Your task to perform on an android device: Do I have any events this weekend? Image 0: 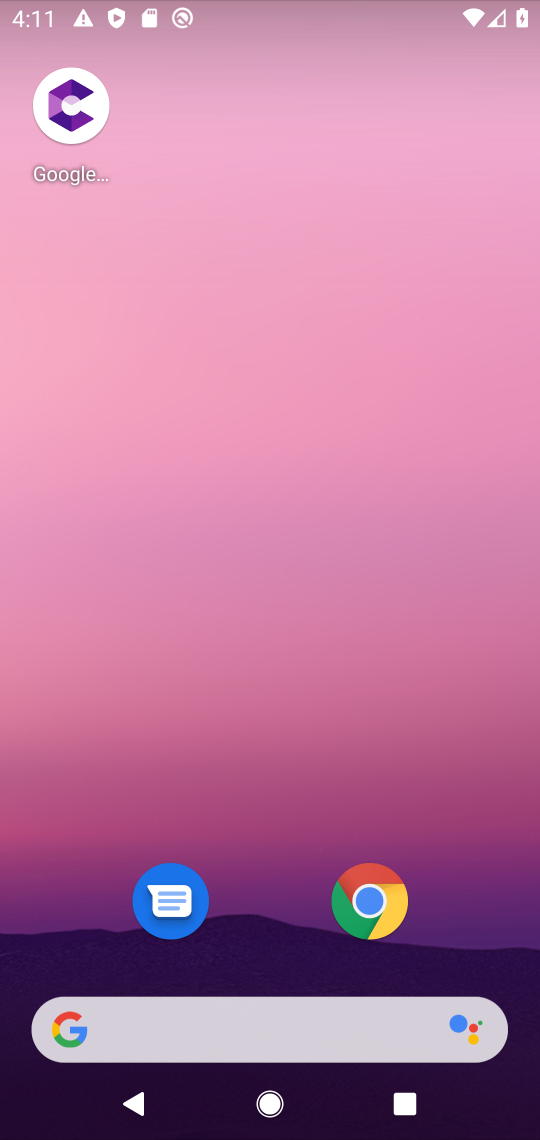
Step 0: press home button
Your task to perform on an android device: Do I have any events this weekend? Image 1: 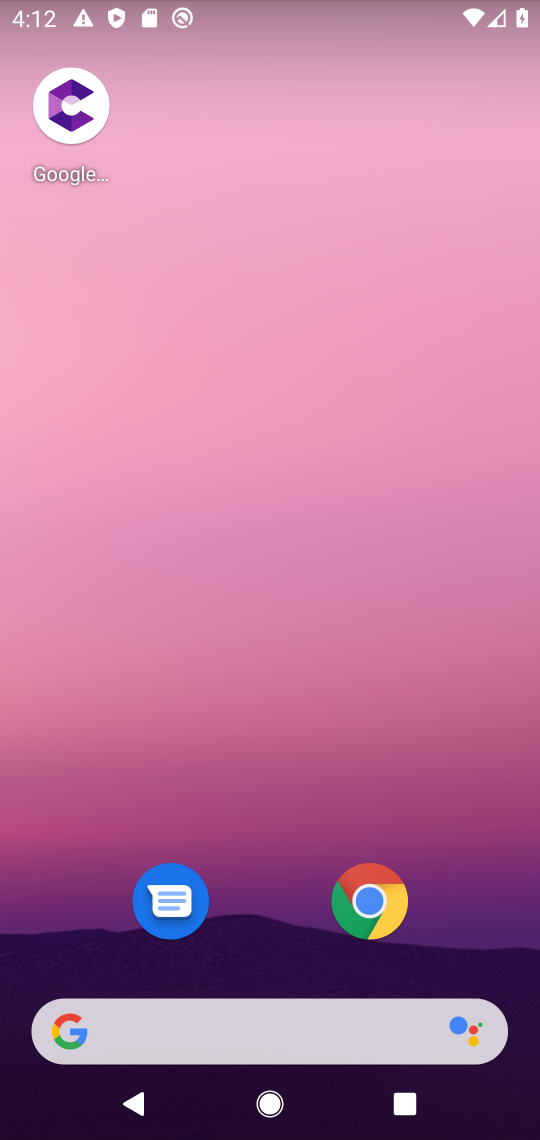
Step 1: drag from (252, 1012) to (291, 73)
Your task to perform on an android device: Do I have any events this weekend? Image 2: 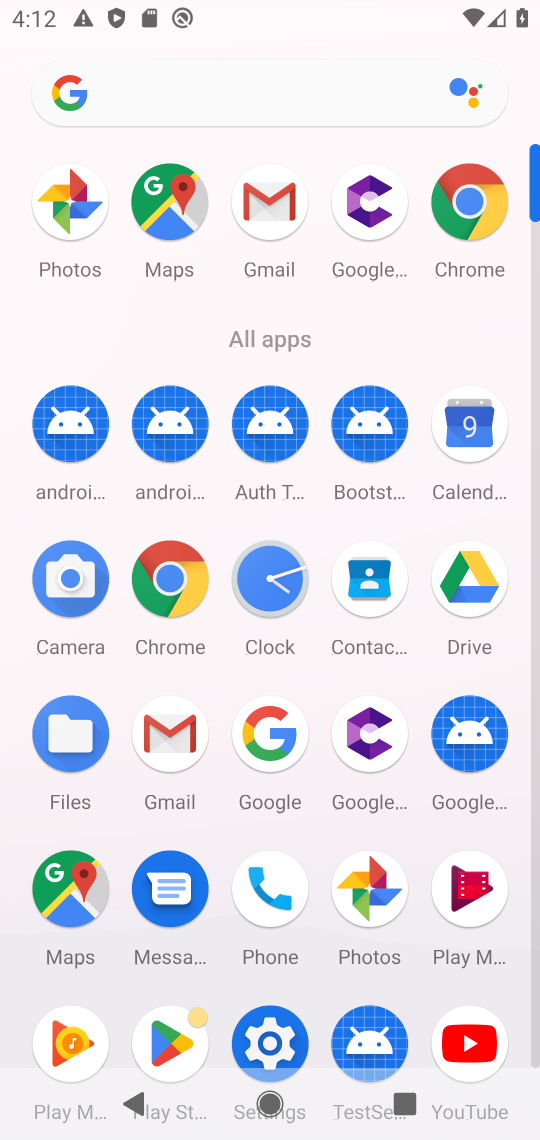
Step 2: click (494, 406)
Your task to perform on an android device: Do I have any events this weekend? Image 3: 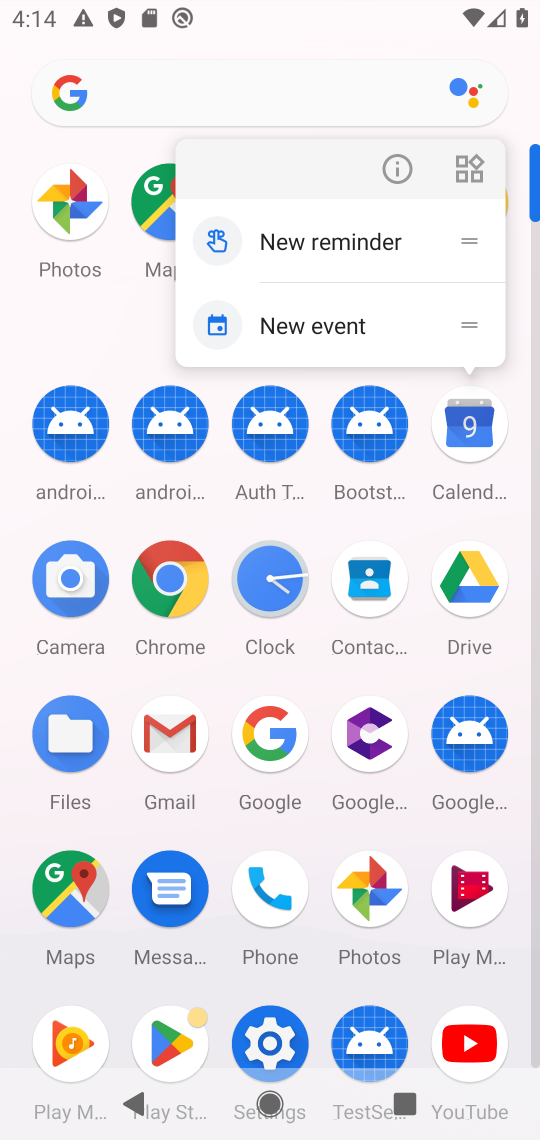
Step 3: click (453, 467)
Your task to perform on an android device: Do I have any events this weekend? Image 4: 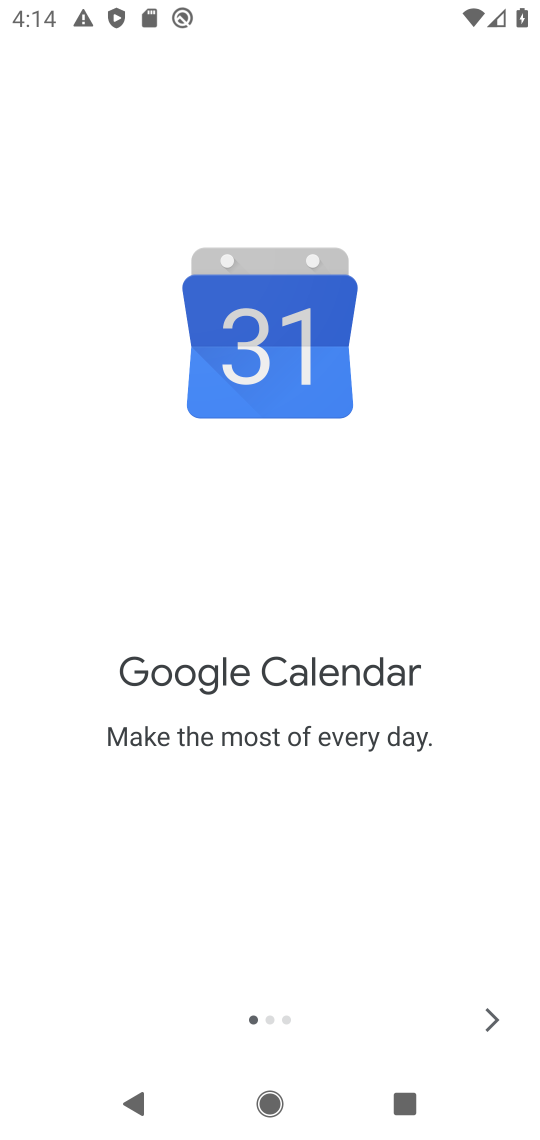
Step 4: click (482, 1012)
Your task to perform on an android device: Do I have any events this weekend? Image 5: 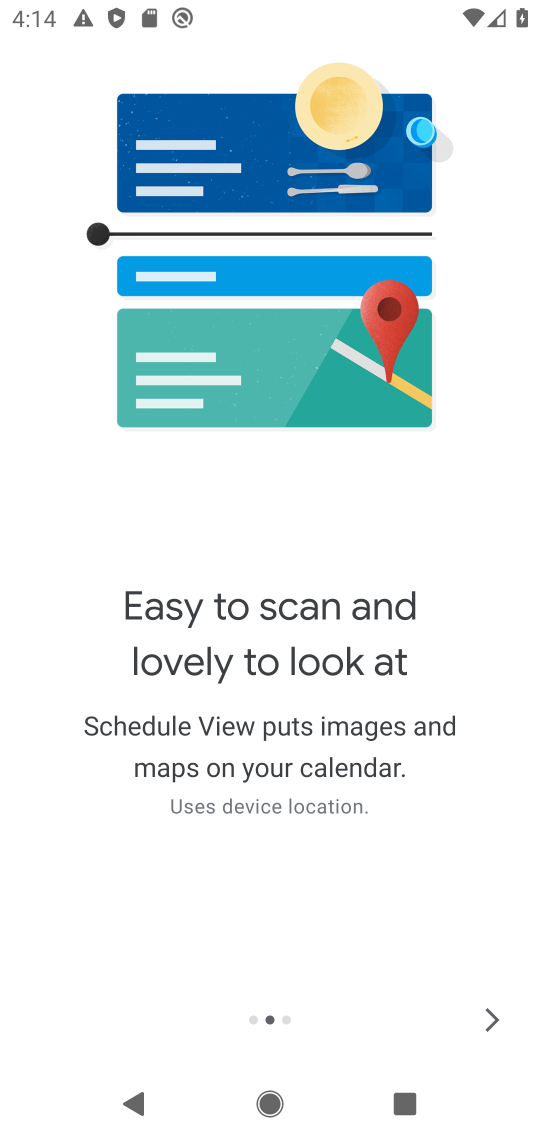
Step 5: click (482, 1012)
Your task to perform on an android device: Do I have any events this weekend? Image 6: 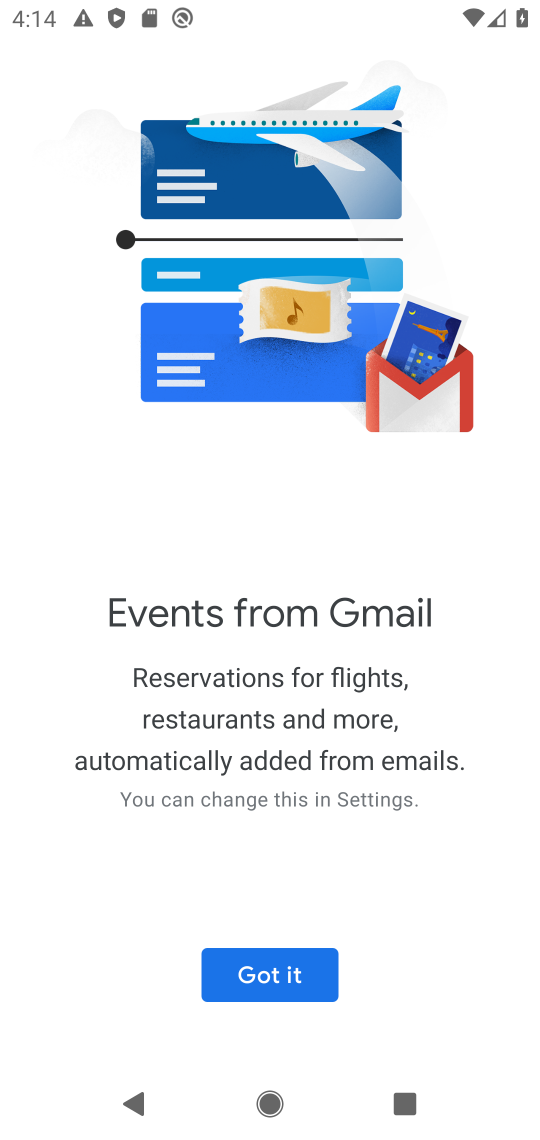
Step 6: click (482, 1012)
Your task to perform on an android device: Do I have any events this weekend? Image 7: 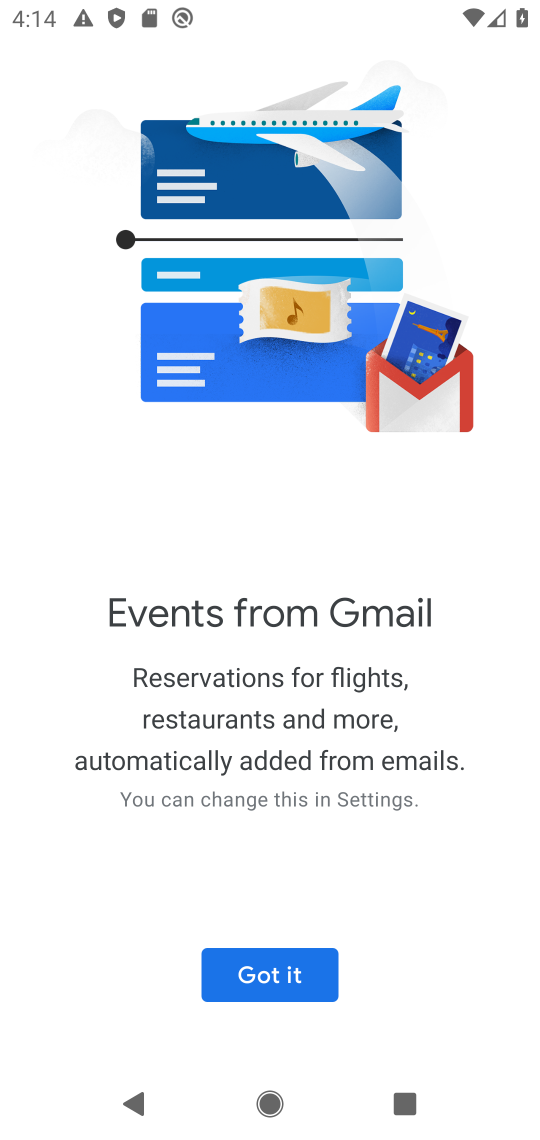
Step 7: click (285, 996)
Your task to perform on an android device: Do I have any events this weekend? Image 8: 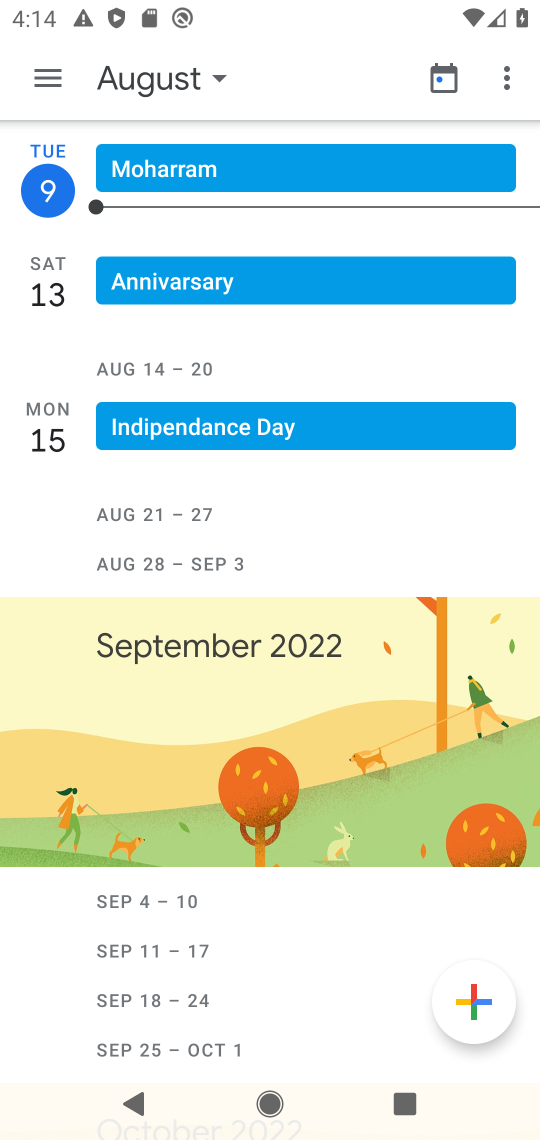
Step 8: click (209, 82)
Your task to perform on an android device: Do I have any events this weekend? Image 9: 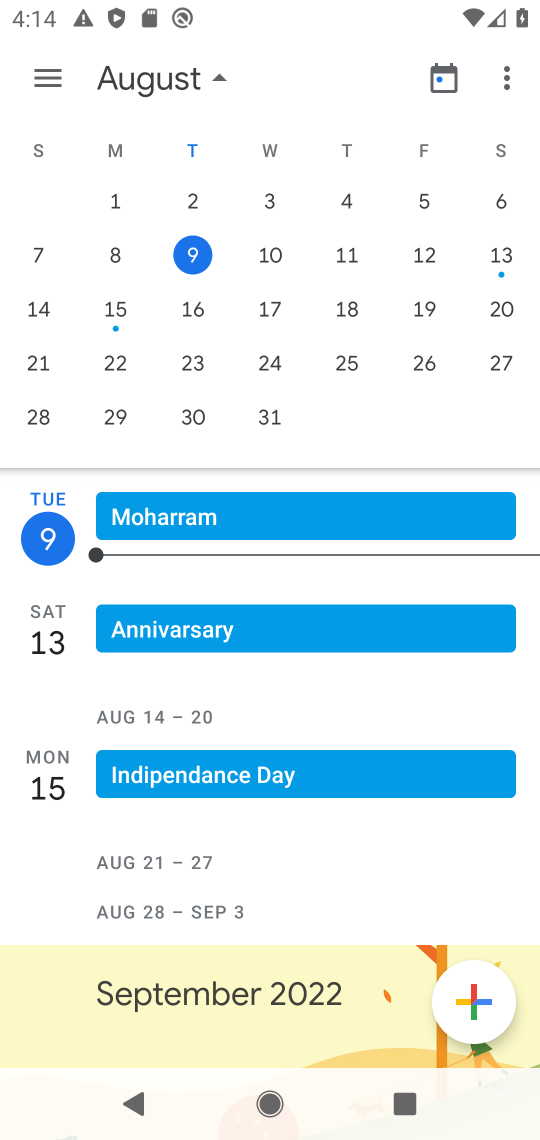
Step 9: click (172, 325)
Your task to perform on an android device: Do I have any events this weekend? Image 10: 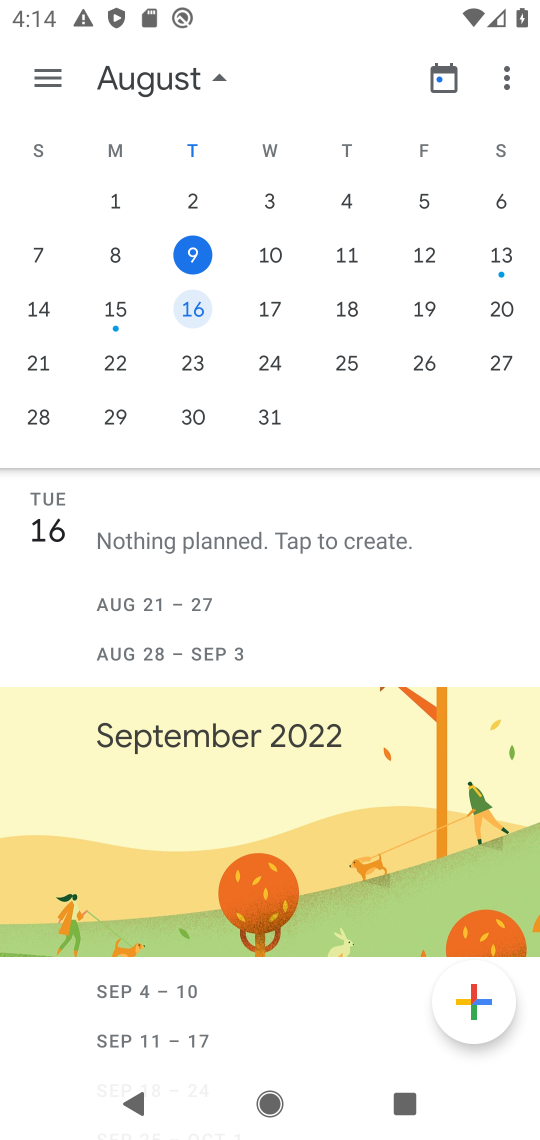
Step 10: task complete